Your task to perform on an android device: turn off sleep mode Image 0: 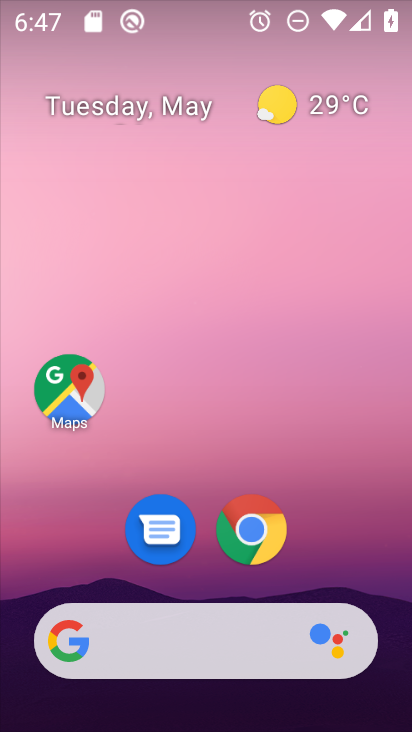
Step 0: drag from (386, 536) to (206, 164)
Your task to perform on an android device: turn off sleep mode Image 1: 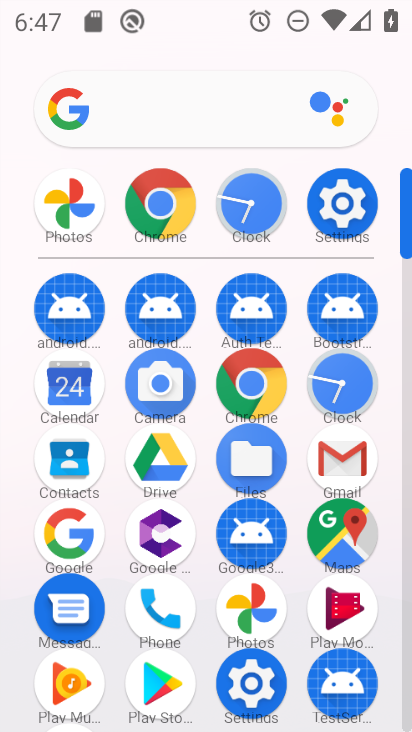
Step 1: click (357, 209)
Your task to perform on an android device: turn off sleep mode Image 2: 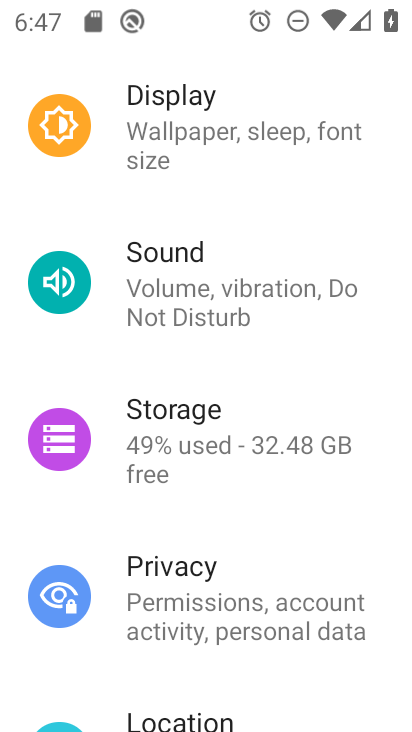
Step 2: task complete